Your task to perform on an android device: Show the shopping cart on bestbuy. Add dell xps to the cart on bestbuy Image 0: 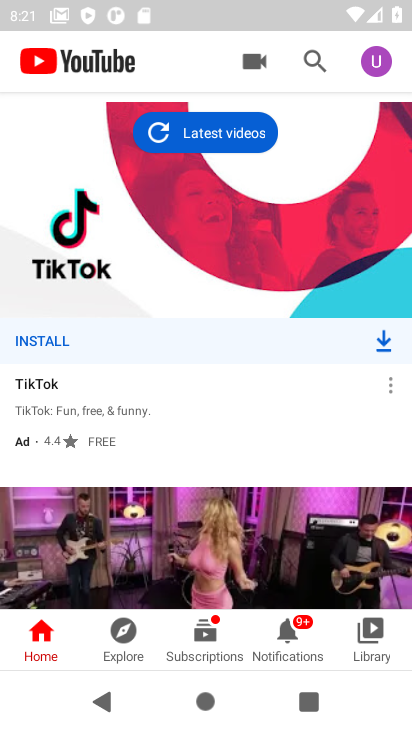
Step 0: press home button
Your task to perform on an android device: Show the shopping cart on bestbuy. Add dell xps to the cart on bestbuy Image 1: 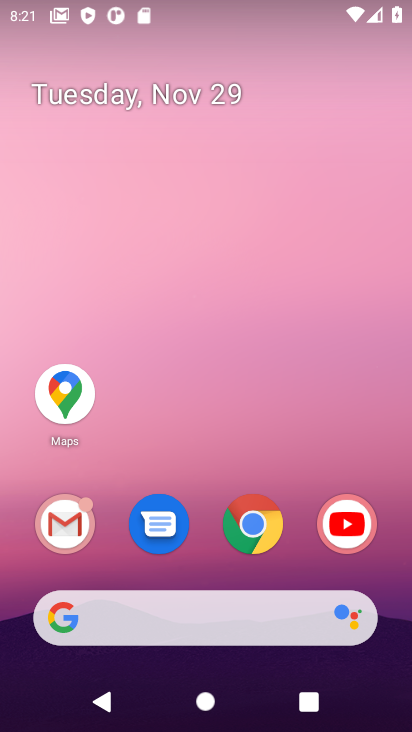
Step 1: click (251, 526)
Your task to perform on an android device: Show the shopping cart on bestbuy. Add dell xps to the cart on bestbuy Image 2: 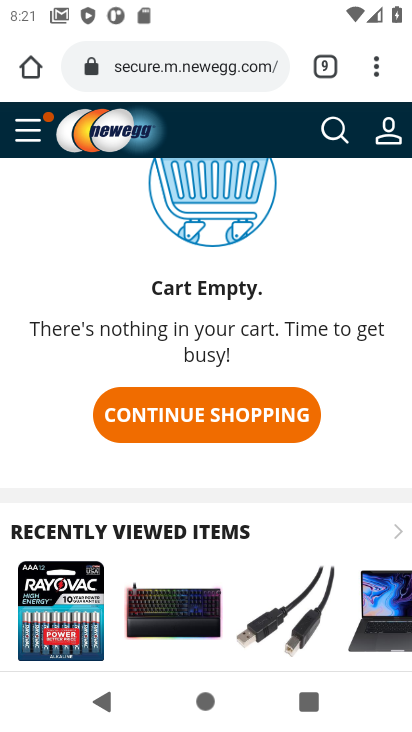
Step 2: click (183, 75)
Your task to perform on an android device: Show the shopping cart on bestbuy. Add dell xps to the cart on bestbuy Image 3: 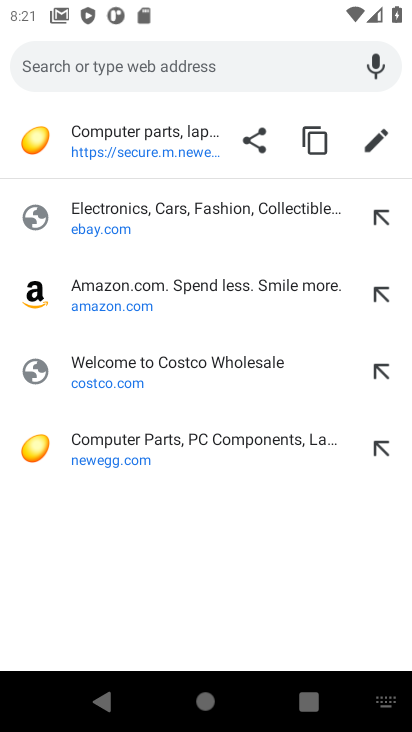
Step 3: type "bestbuy.com"
Your task to perform on an android device: Show the shopping cart on bestbuy. Add dell xps to the cart on bestbuy Image 4: 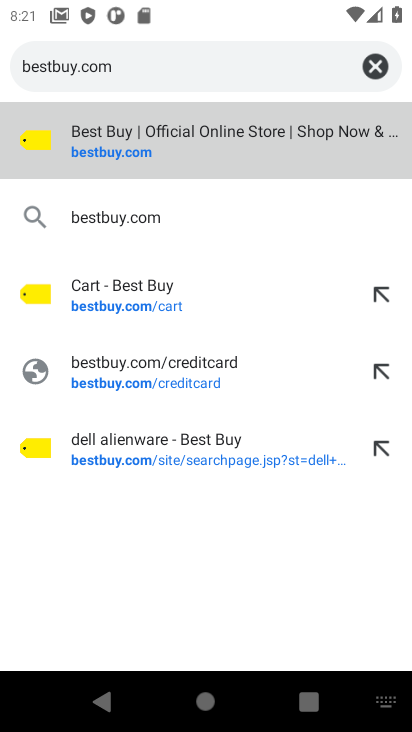
Step 4: click (124, 154)
Your task to perform on an android device: Show the shopping cart on bestbuy. Add dell xps to the cart on bestbuy Image 5: 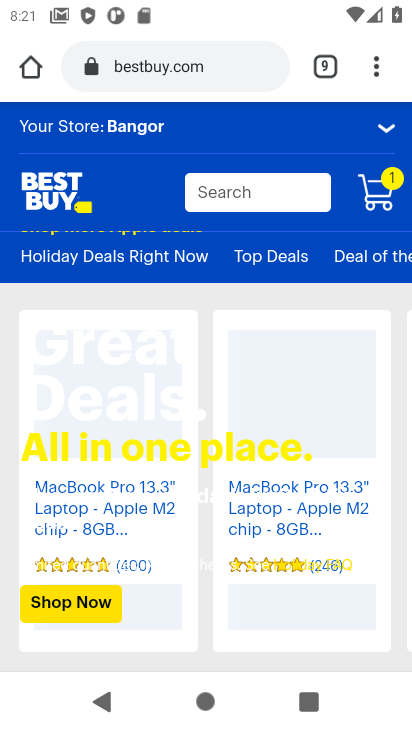
Step 5: click (378, 198)
Your task to perform on an android device: Show the shopping cart on bestbuy. Add dell xps to the cart on bestbuy Image 6: 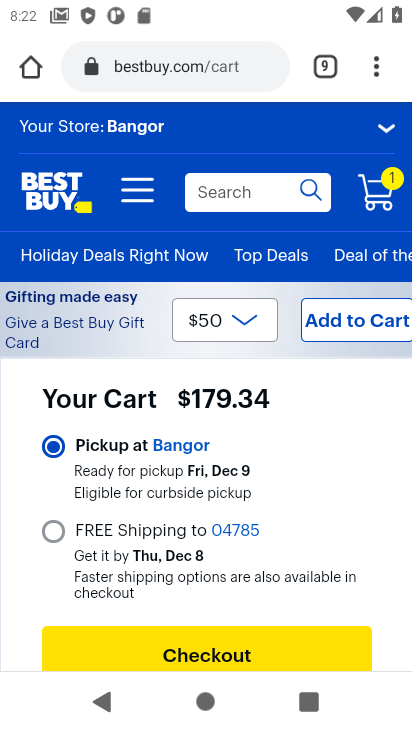
Step 6: click (247, 195)
Your task to perform on an android device: Show the shopping cart on bestbuy. Add dell xps to the cart on bestbuy Image 7: 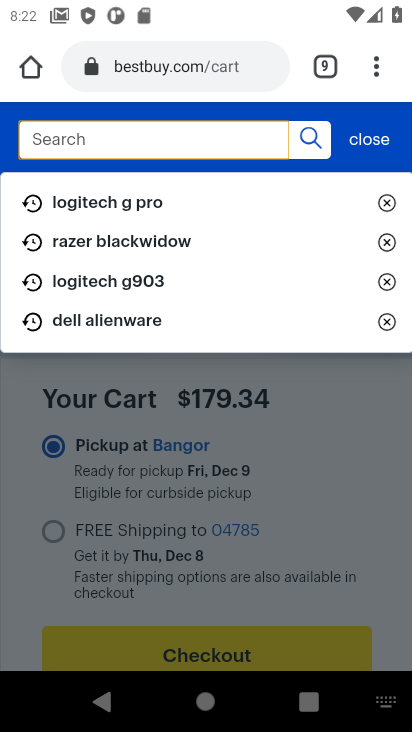
Step 7: type "dell xps"
Your task to perform on an android device: Show the shopping cart on bestbuy. Add dell xps to the cart on bestbuy Image 8: 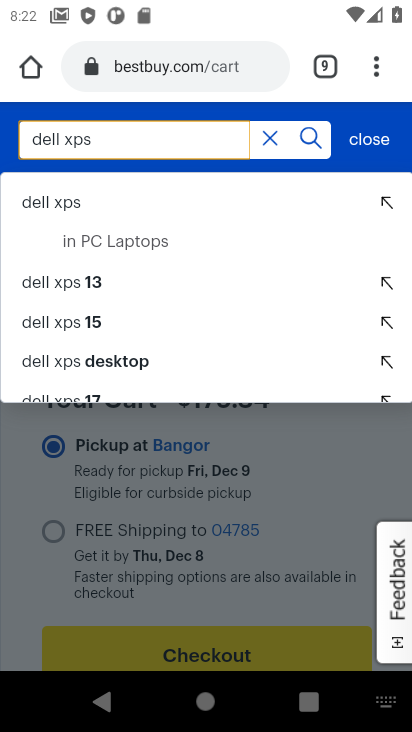
Step 8: click (58, 207)
Your task to perform on an android device: Show the shopping cart on bestbuy. Add dell xps to the cart on bestbuy Image 9: 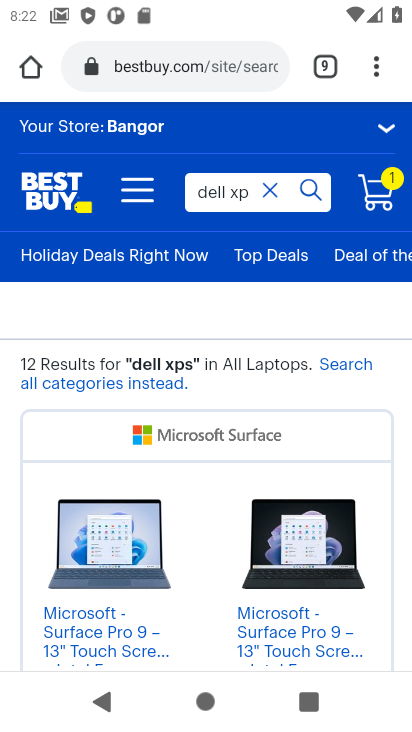
Step 9: drag from (194, 533) to (156, 250)
Your task to perform on an android device: Show the shopping cart on bestbuy. Add dell xps to the cart on bestbuy Image 10: 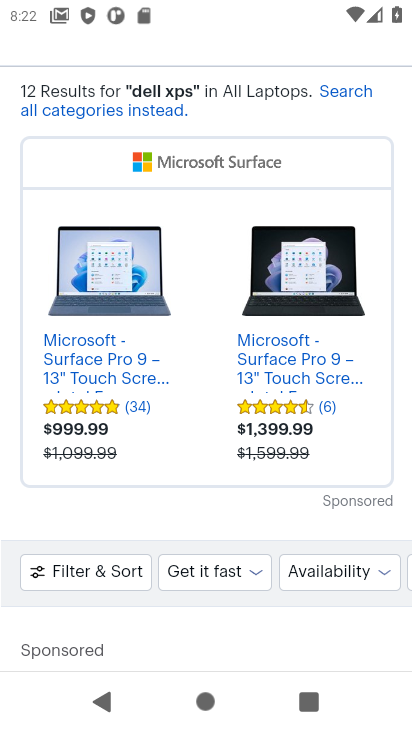
Step 10: drag from (177, 435) to (169, 148)
Your task to perform on an android device: Show the shopping cart on bestbuy. Add dell xps to the cart on bestbuy Image 11: 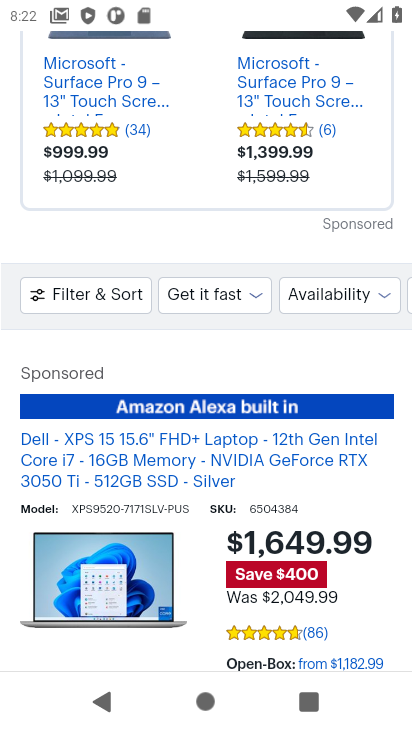
Step 11: drag from (179, 441) to (160, 226)
Your task to perform on an android device: Show the shopping cart on bestbuy. Add dell xps to the cart on bestbuy Image 12: 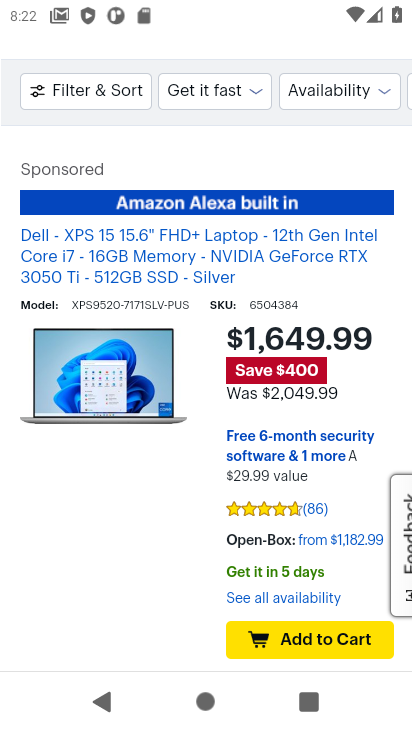
Step 12: click (301, 631)
Your task to perform on an android device: Show the shopping cart on bestbuy. Add dell xps to the cart on bestbuy Image 13: 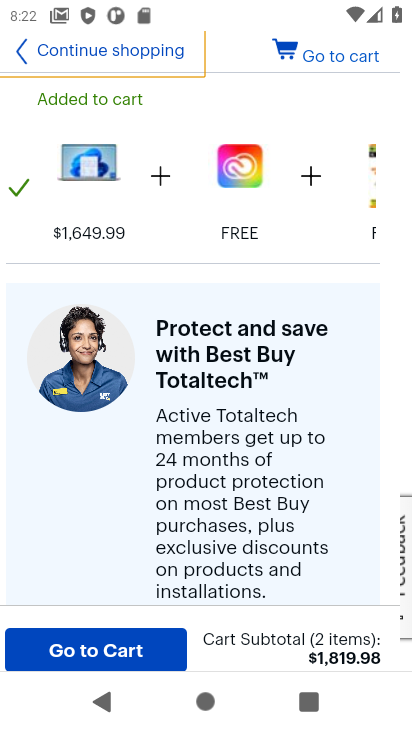
Step 13: task complete